Your task to perform on an android device: What is the recent news? Image 0: 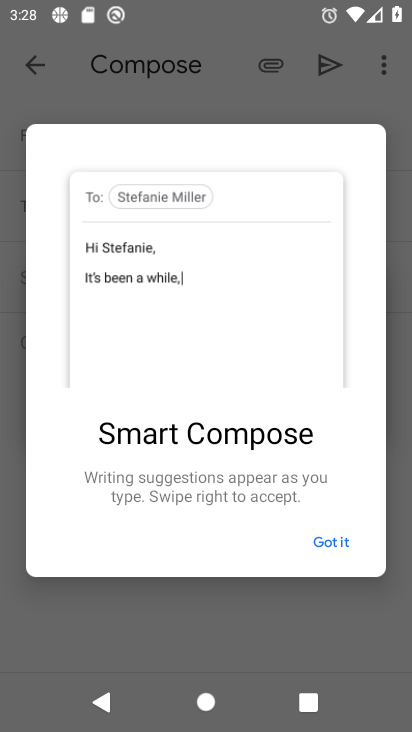
Step 0: press back button
Your task to perform on an android device: What is the recent news? Image 1: 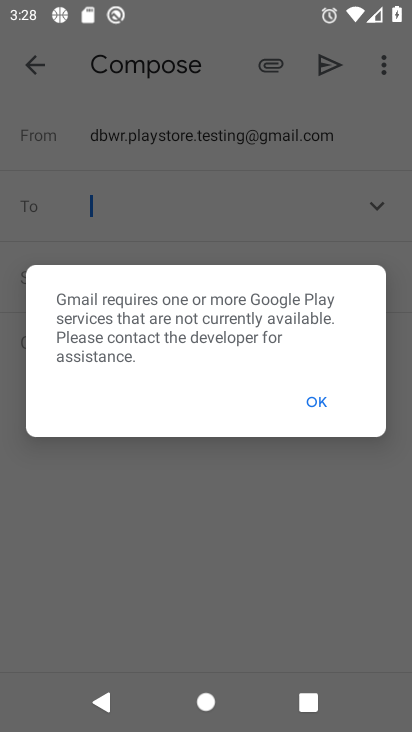
Step 1: press home button
Your task to perform on an android device: What is the recent news? Image 2: 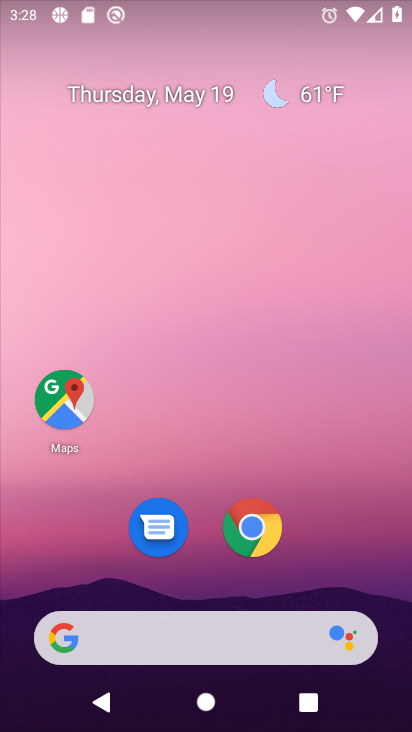
Step 2: drag from (197, 592) to (289, 60)
Your task to perform on an android device: What is the recent news? Image 3: 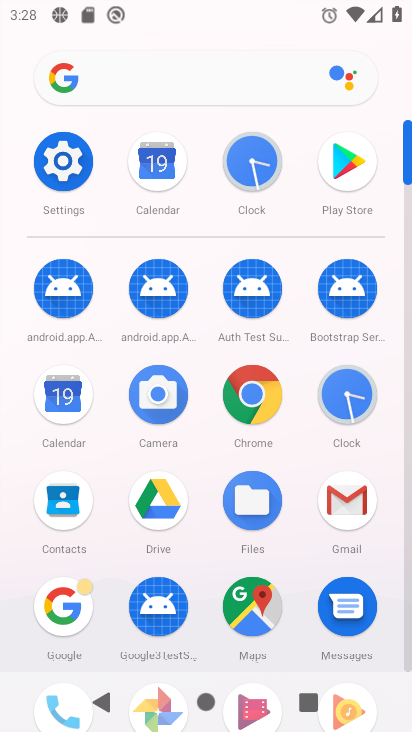
Step 3: click (134, 79)
Your task to perform on an android device: What is the recent news? Image 4: 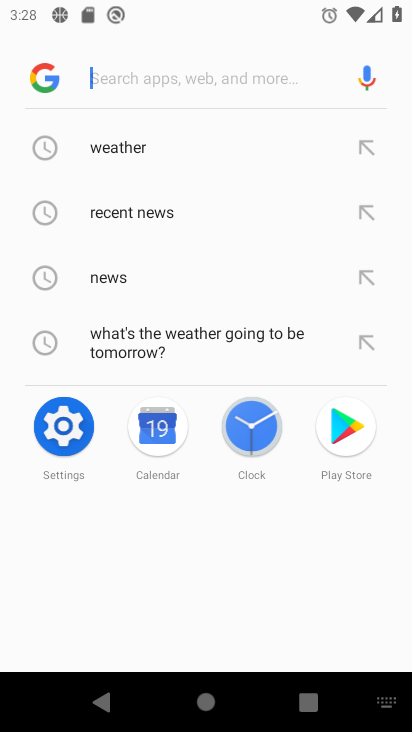
Step 4: click (128, 206)
Your task to perform on an android device: What is the recent news? Image 5: 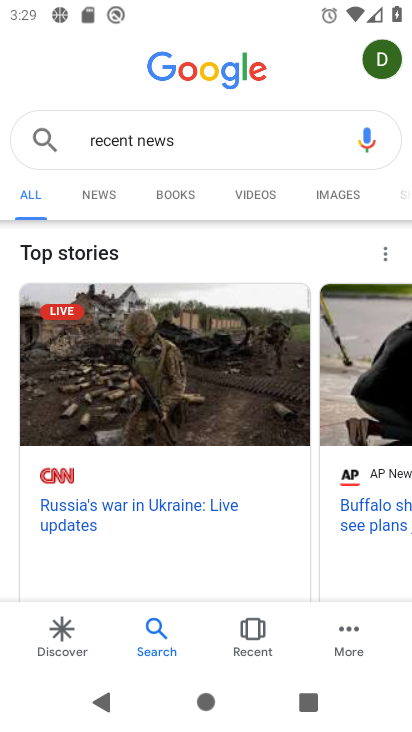
Step 5: task complete